Your task to perform on an android device: empty trash in the gmail app Image 0: 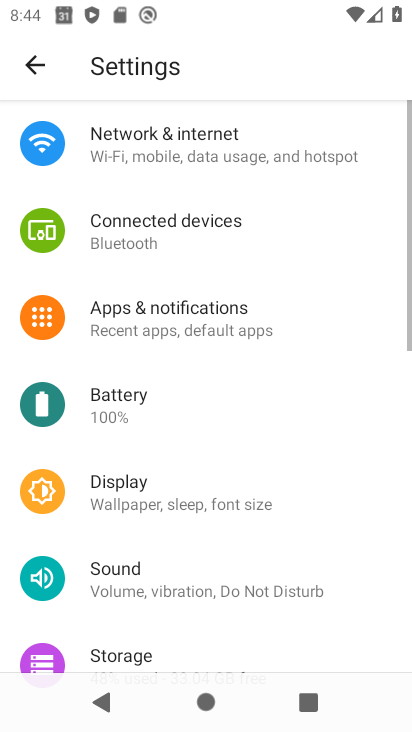
Step 0: press back button
Your task to perform on an android device: empty trash in the gmail app Image 1: 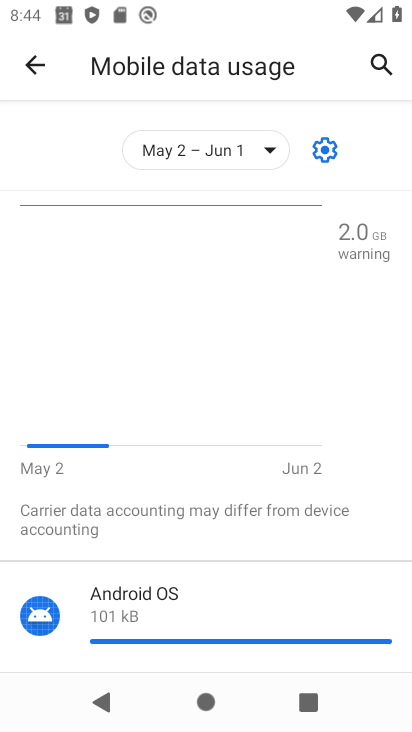
Step 1: press home button
Your task to perform on an android device: empty trash in the gmail app Image 2: 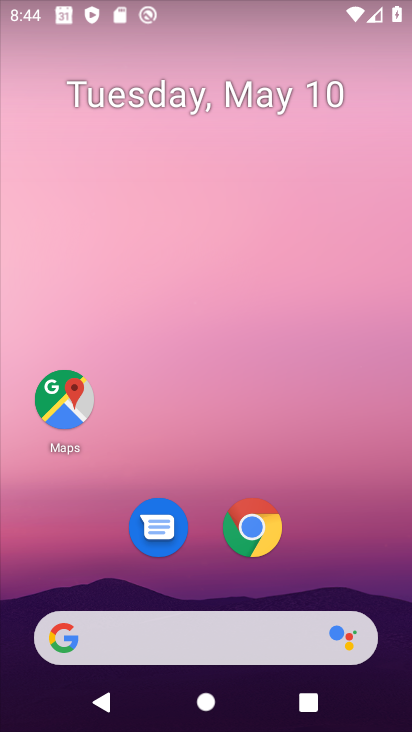
Step 2: drag from (183, 602) to (301, 90)
Your task to perform on an android device: empty trash in the gmail app Image 3: 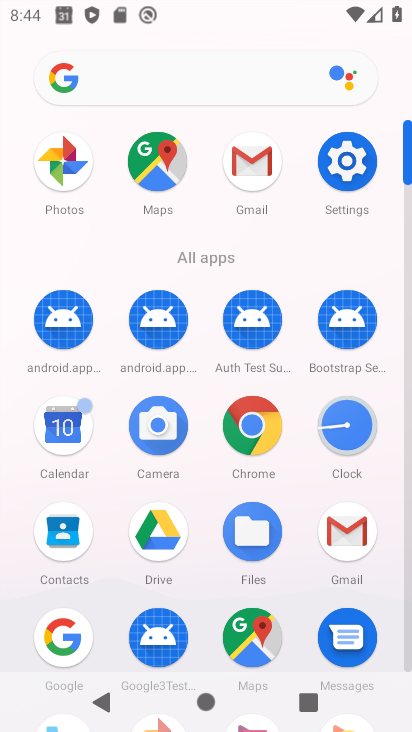
Step 3: click (366, 542)
Your task to perform on an android device: empty trash in the gmail app Image 4: 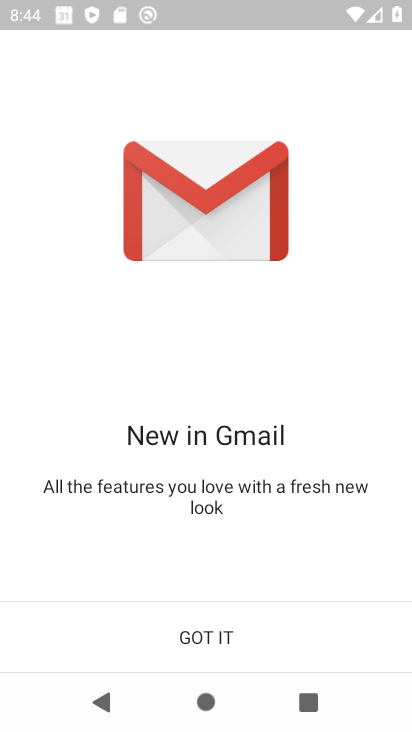
Step 4: click (275, 643)
Your task to perform on an android device: empty trash in the gmail app Image 5: 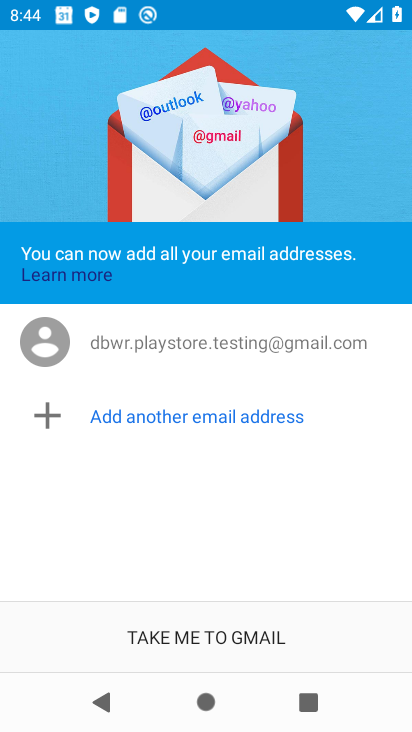
Step 5: click (163, 617)
Your task to perform on an android device: empty trash in the gmail app Image 6: 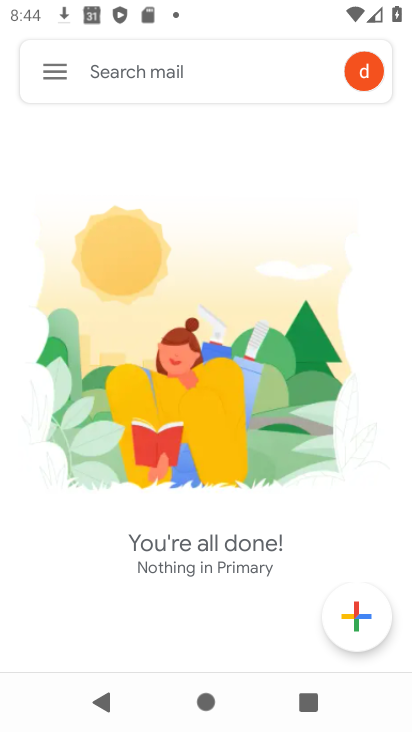
Step 6: click (62, 79)
Your task to perform on an android device: empty trash in the gmail app Image 7: 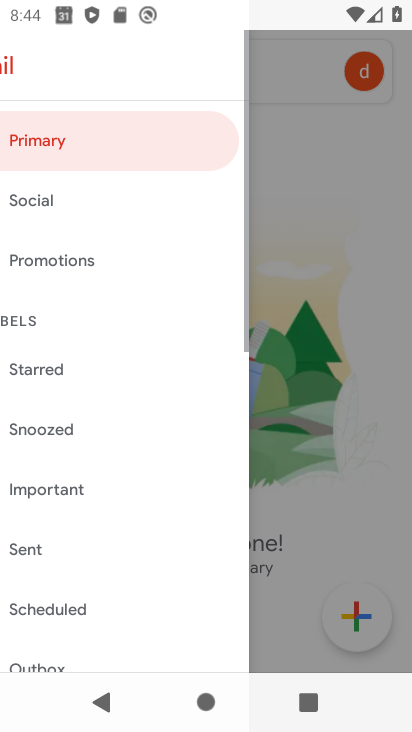
Step 7: click (62, 79)
Your task to perform on an android device: empty trash in the gmail app Image 8: 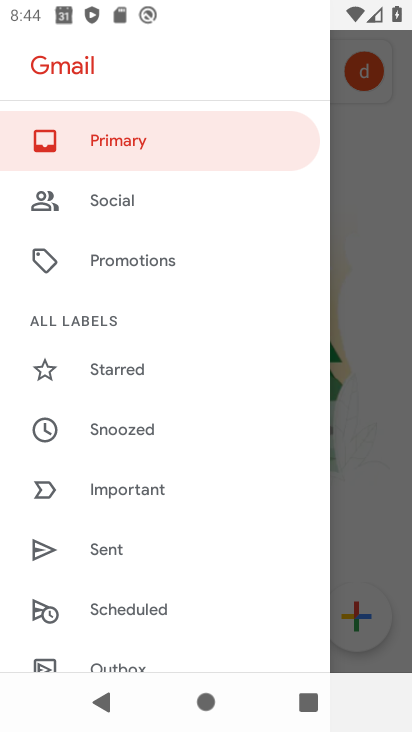
Step 8: drag from (168, 573) to (233, 202)
Your task to perform on an android device: empty trash in the gmail app Image 9: 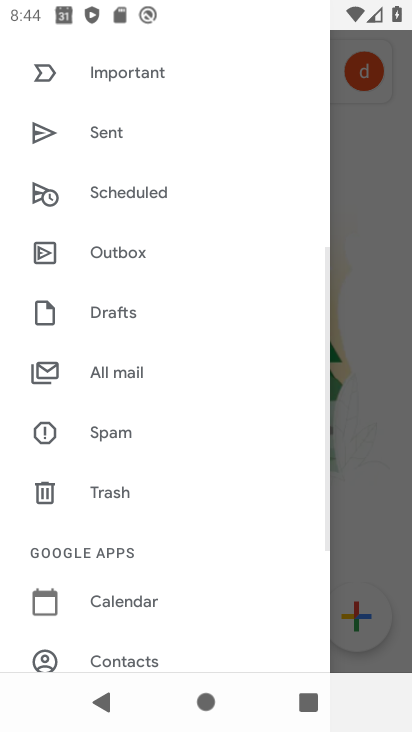
Step 9: drag from (185, 564) to (234, 209)
Your task to perform on an android device: empty trash in the gmail app Image 10: 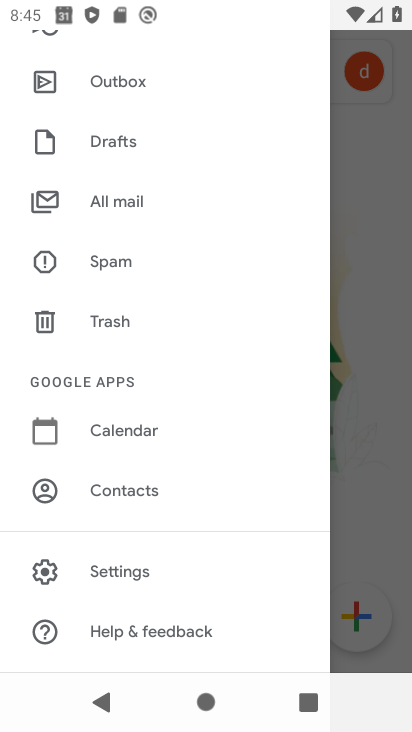
Step 10: click (168, 326)
Your task to perform on an android device: empty trash in the gmail app Image 11: 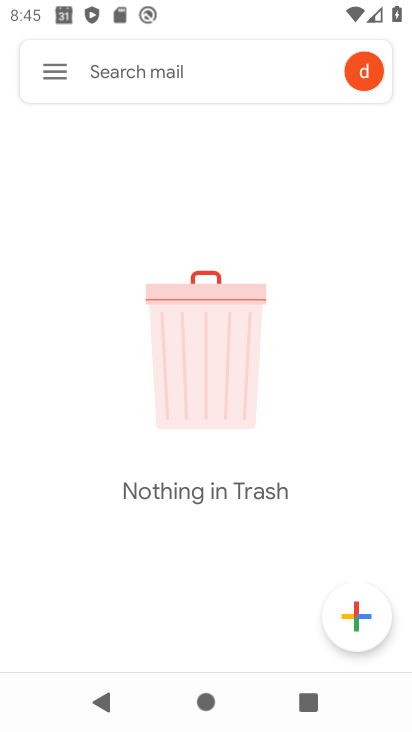
Step 11: task complete